Your task to perform on an android device: Open accessibility settings Image 0: 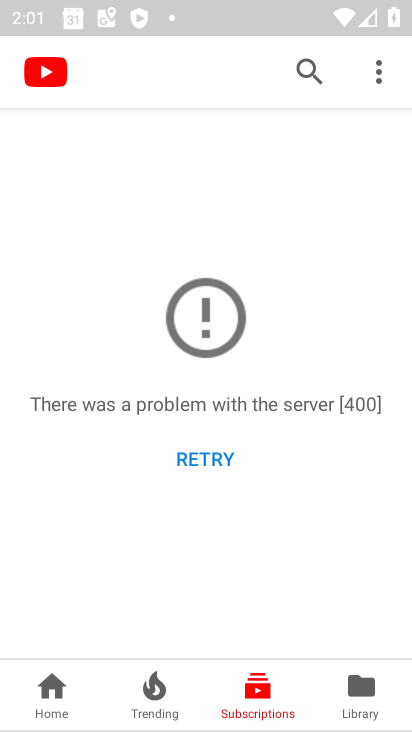
Step 0: press home button
Your task to perform on an android device: Open accessibility settings Image 1: 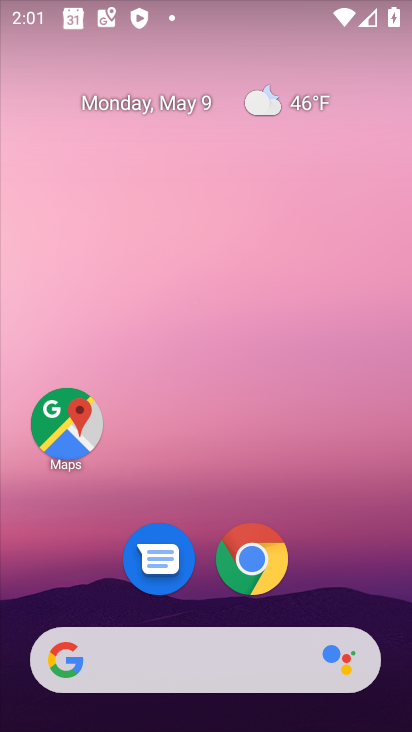
Step 1: drag from (335, 596) to (328, 140)
Your task to perform on an android device: Open accessibility settings Image 2: 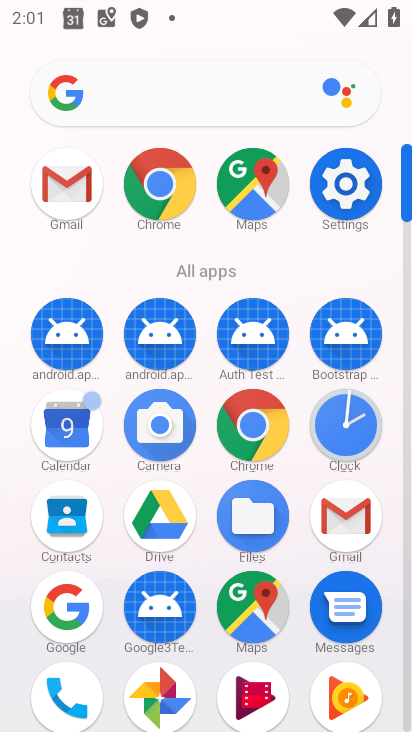
Step 2: click (345, 199)
Your task to perform on an android device: Open accessibility settings Image 3: 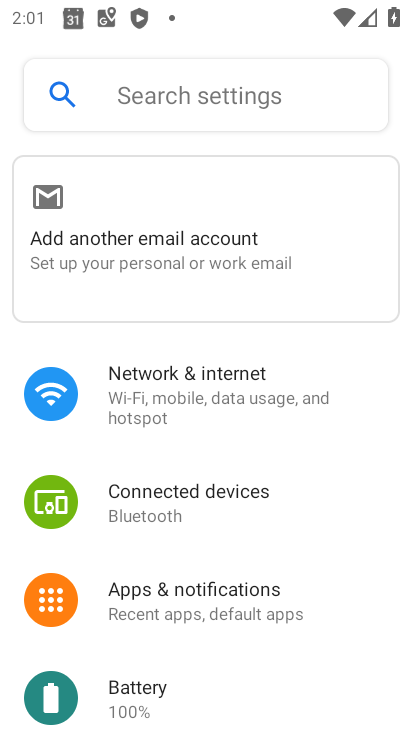
Step 3: drag from (276, 583) to (283, 307)
Your task to perform on an android device: Open accessibility settings Image 4: 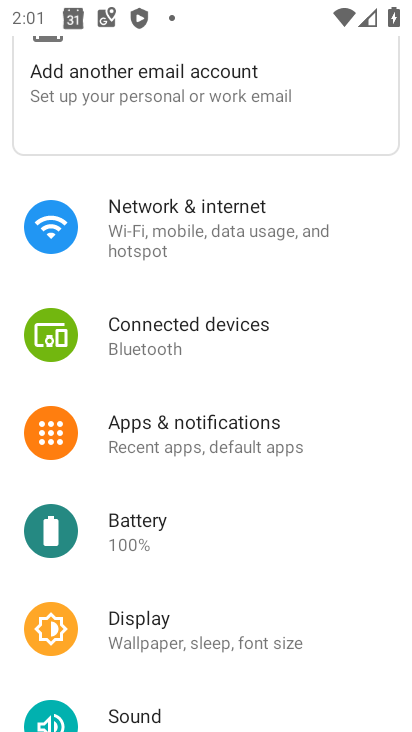
Step 4: drag from (342, 636) to (326, 273)
Your task to perform on an android device: Open accessibility settings Image 5: 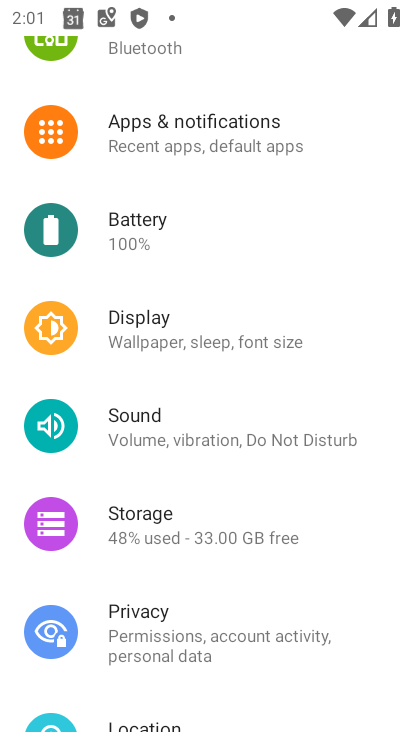
Step 5: drag from (317, 517) to (289, 239)
Your task to perform on an android device: Open accessibility settings Image 6: 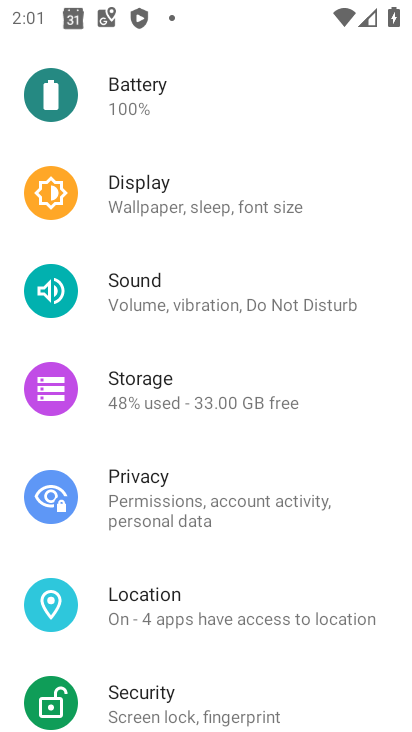
Step 6: drag from (313, 636) to (296, 254)
Your task to perform on an android device: Open accessibility settings Image 7: 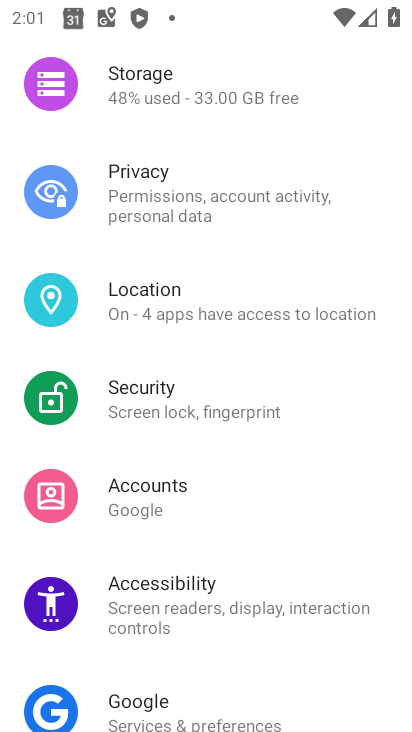
Step 7: click (290, 608)
Your task to perform on an android device: Open accessibility settings Image 8: 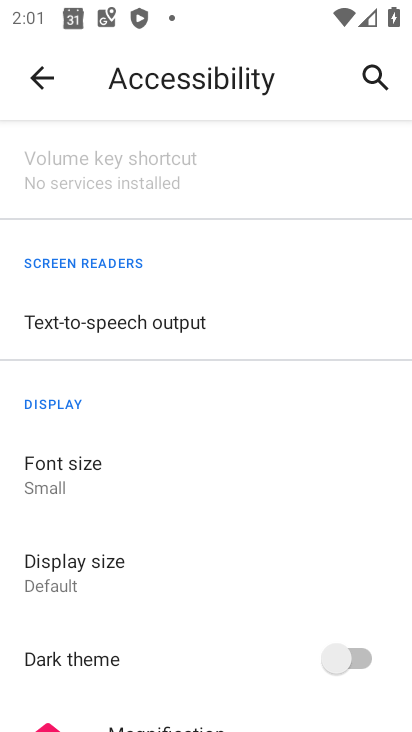
Step 8: task complete